Your task to perform on an android device: turn on translation in the chrome app Image 0: 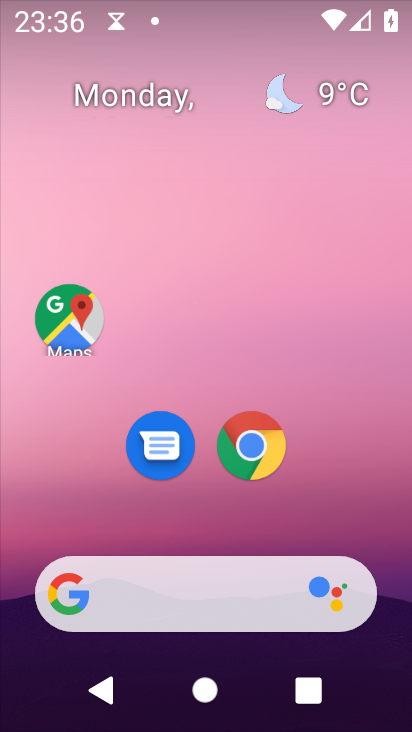
Step 0: drag from (271, 647) to (283, 22)
Your task to perform on an android device: turn on translation in the chrome app Image 1: 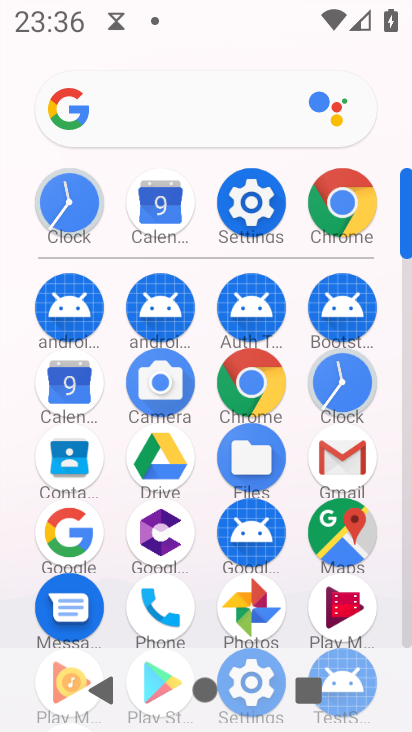
Step 1: click (269, 376)
Your task to perform on an android device: turn on translation in the chrome app Image 2: 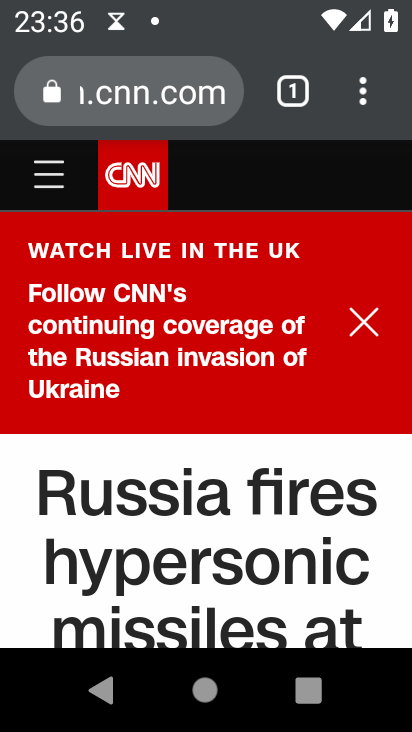
Step 2: drag from (352, 84) to (174, 481)
Your task to perform on an android device: turn on translation in the chrome app Image 3: 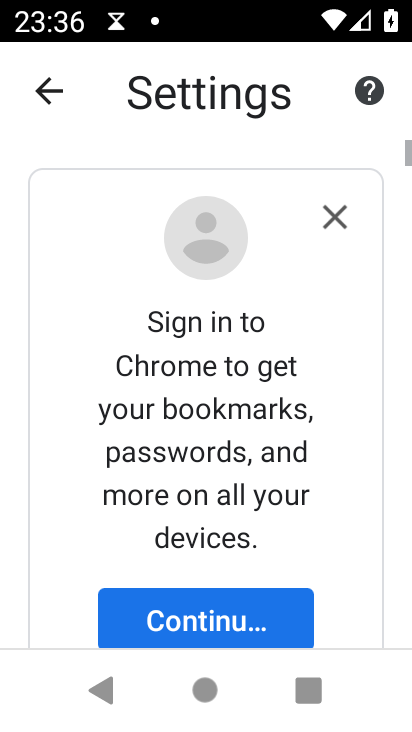
Step 3: drag from (224, 614) to (228, 113)
Your task to perform on an android device: turn on translation in the chrome app Image 4: 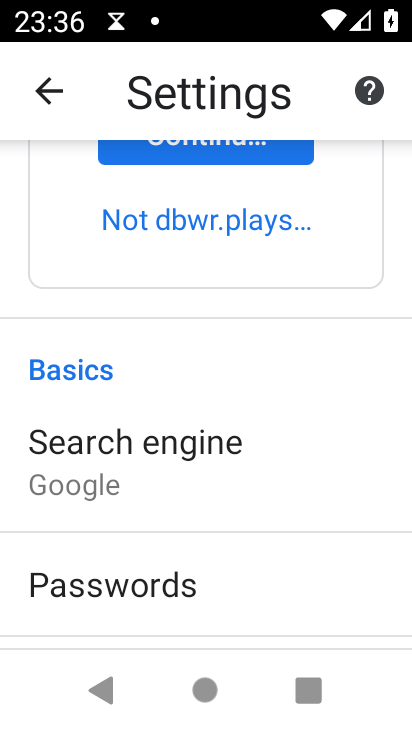
Step 4: drag from (299, 565) to (331, 212)
Your task to perform on an android device: turn on translation in the chrome app Image 5: 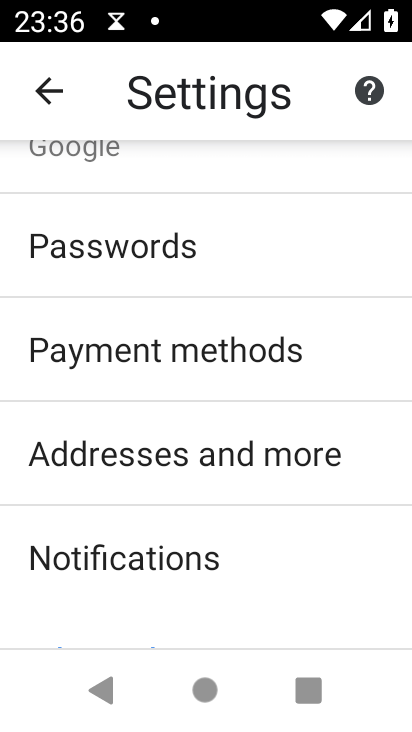
Step 5: drag from (291, 585) to (309, 204)
Your task to perform on an android device: turn on translation in the chrome app Image 6: 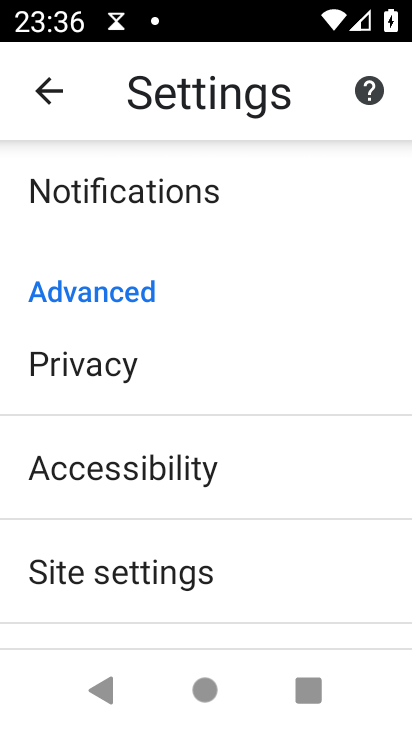
Step 6: drag from (219, 587) to (257, 290)
Your task to perform on an android device: turn on translation in the chrome app Image 7: 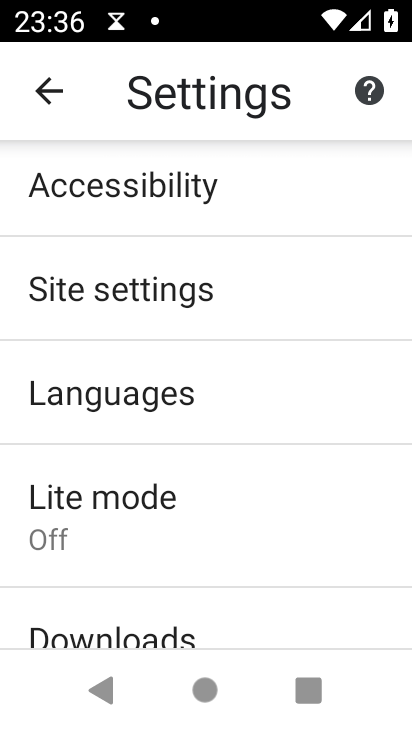
Step 7: click (159, 506)
Your task to perform on an android device: turn on translation in the chrome app Image 8: 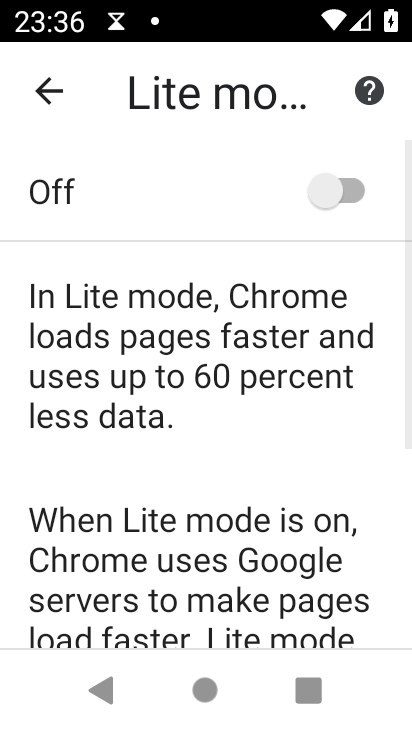
Step 8: press back button
Your task to perform on an android device: turn on translation in the chrome app Image 9: 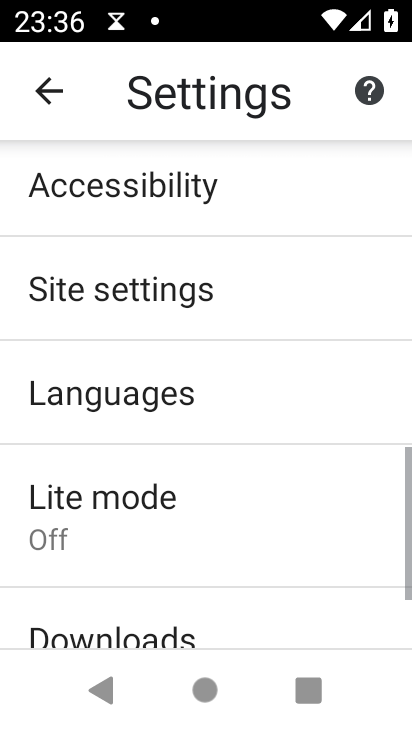
Step 9: click (269, 407)
Your task to perform on an android device: turn on translation in the chrome app Image 10: 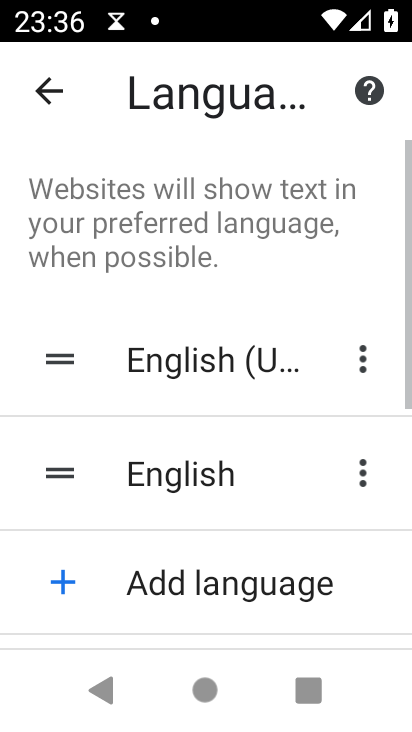
Step 10: task complete